Your task to perform on an android device: Clear the cart on walmart. Add usb-c to usb-b to the cart on walmart, then select checkout. Image 0: 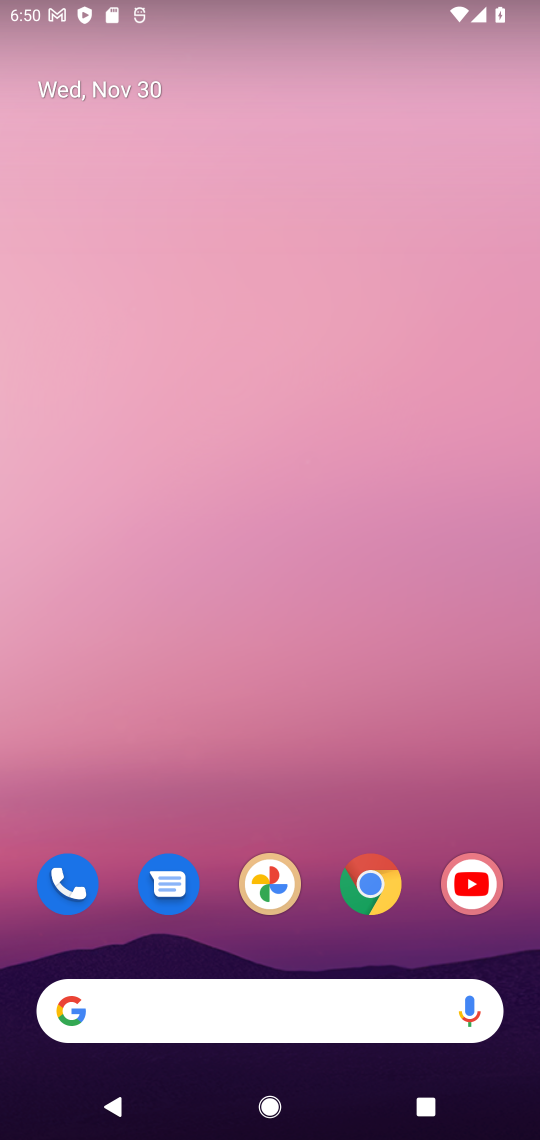
Step 0: click (363, 903)
Your task to perform on an android device: Clear the cart on walmart. Add usb-c to usb-b to the cart on walmart, then select checkout. Image 1: 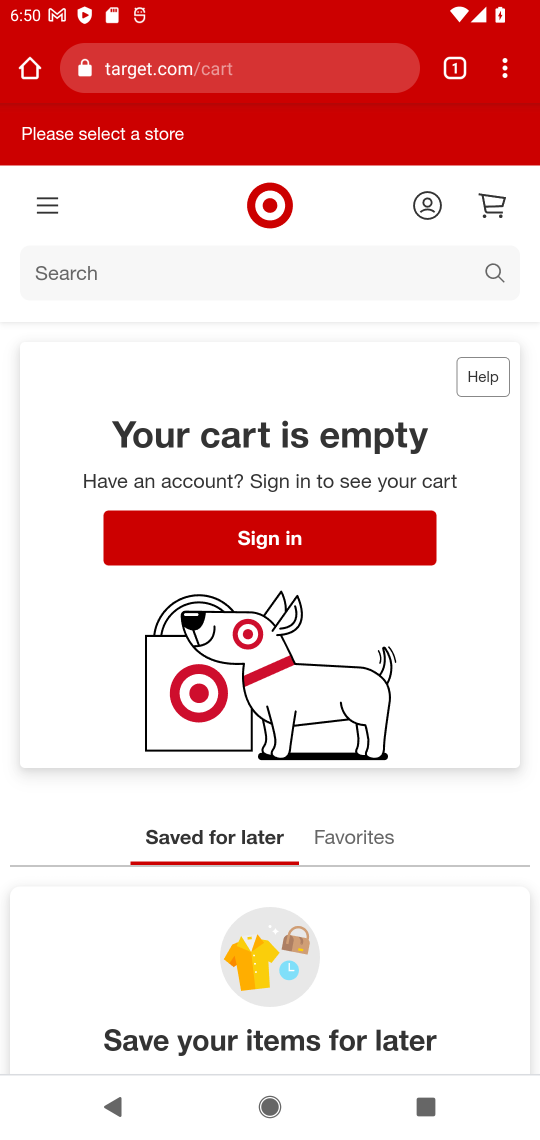
Step 1: click (256, 81)
Your task to perform on an android device: Clear the cart on walmart. Add usb-c to usb-b to the cart on walmart, then select checkout. Image 2: 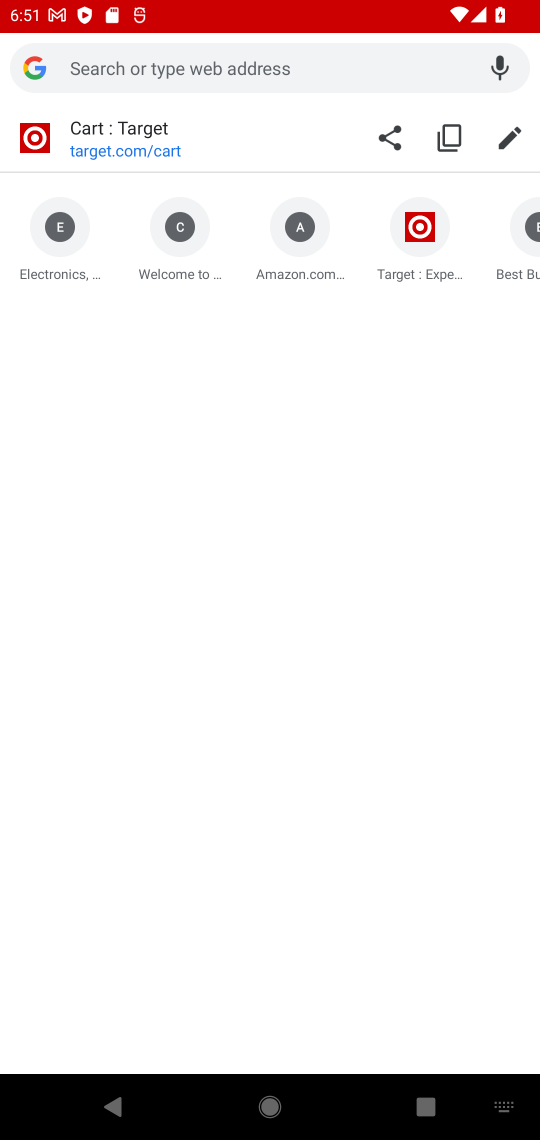
Step 2: type "walmart.com"
Your task to perform on an android device: Clear the cart on walmart. Add usb-c to usb-b to the cart on walmart, then select checkout. Image 3: 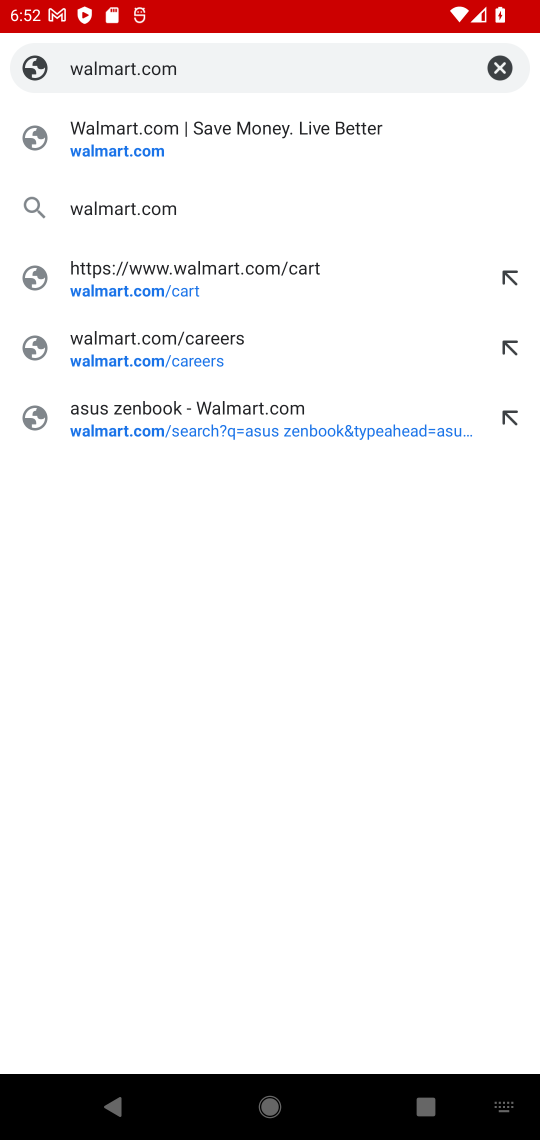
Step 3: click (80, 153)
Your task to perform on an android device: Clear the cart on walmart. Add usb-c to usb-b to the cart on walmart, then select checkout. Image 4: 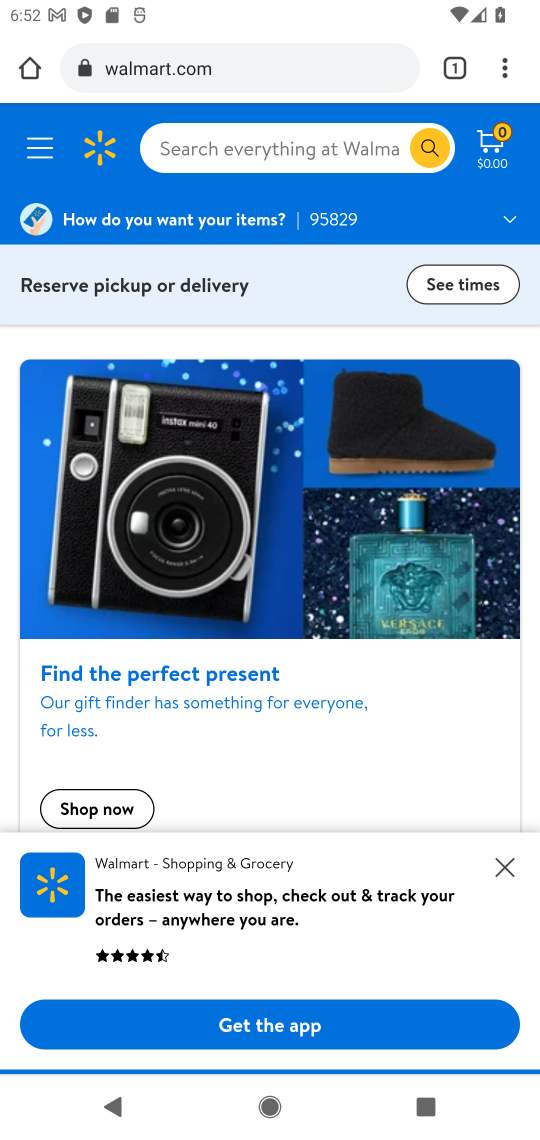
Step 4: click (496, 146)
Your task to perform on an android device: Clear the cart on walmart. Add usb-c to usb-b to the cart on walmart, then select checkout. Image 5: 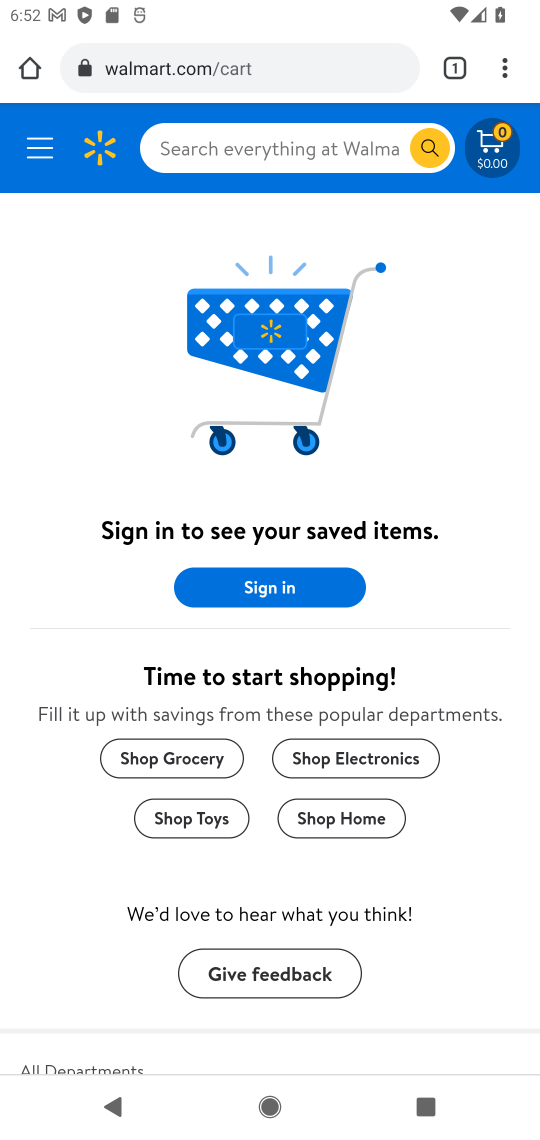
Step 5: click (179, 161)
Your task to perform on an android device: Clear the cart on walmart. Add usb-c to usb-b to the cart on walmart, then select checkout. Image 6: 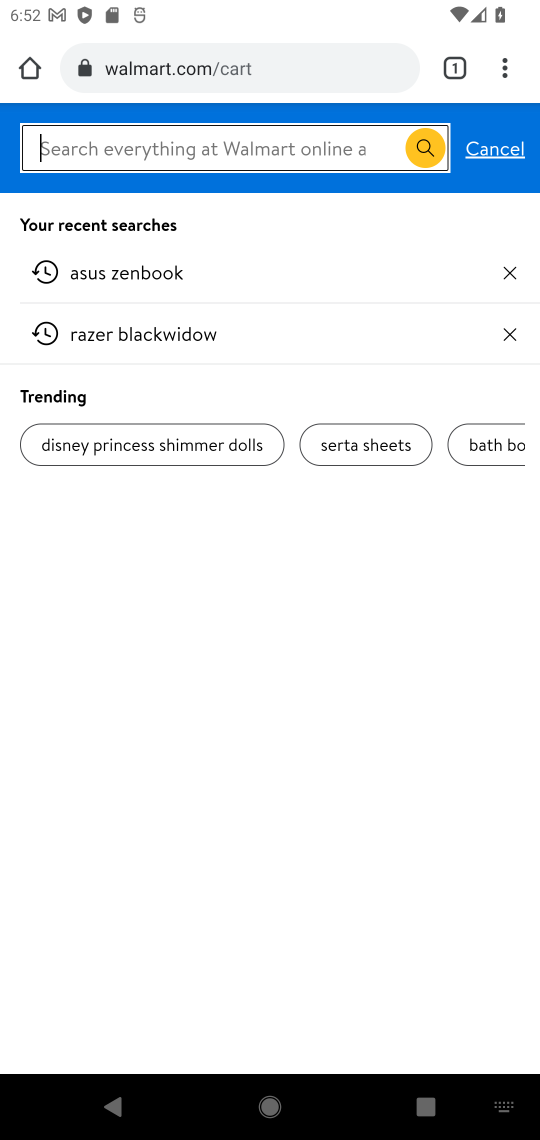
Step 6: type "usb-c to usb-b "
Your task to perform on an android device: Clear the cart on walmart. Add usb-c to usb-b to the cart on walmart, then select checkout. Image 7: 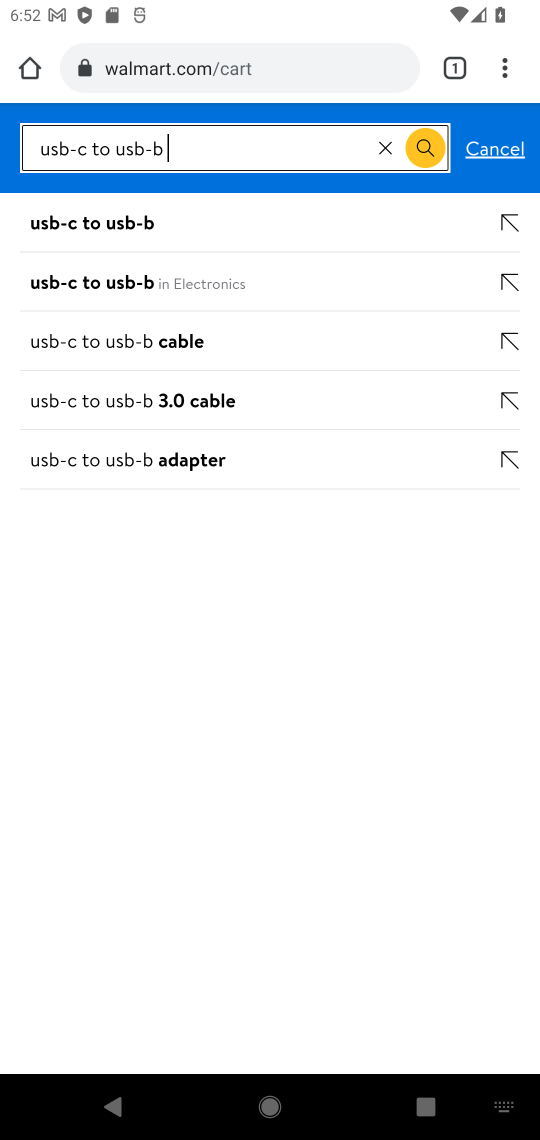
Step 7: click (72, 230)
Your task to perform on an android device: Clear the cart on walmart. Add usb-c to usb-b to the cart on walmart, then select checkout. Image 8: 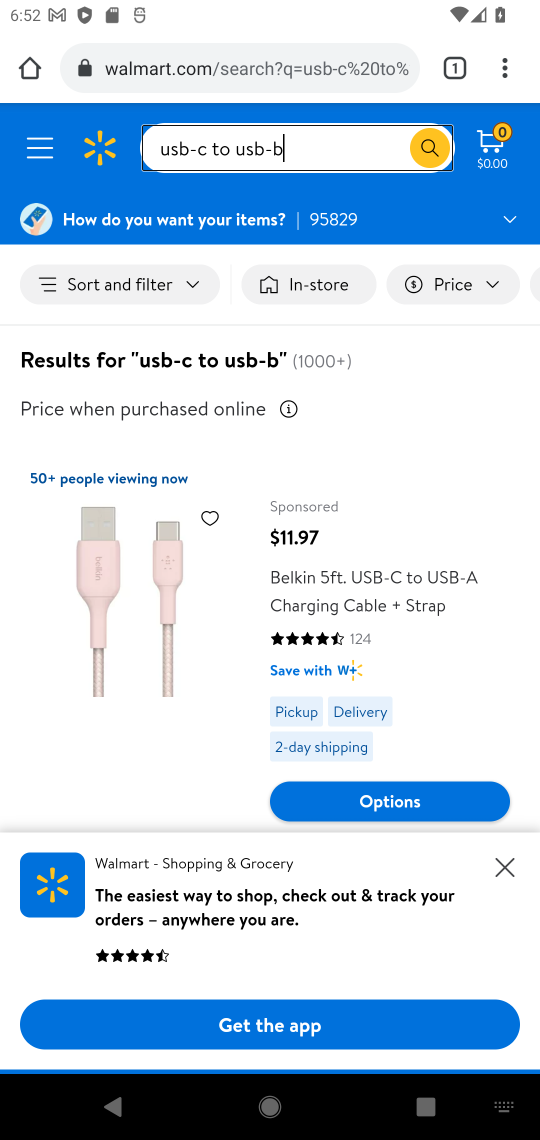
Step 8: drag from (184, 722) to (170, 419)
Your task to perform on an android device: Clear the cart on walmart. Add usb-c to usb-b to the cart on walmart, then select checkout. Image 9: 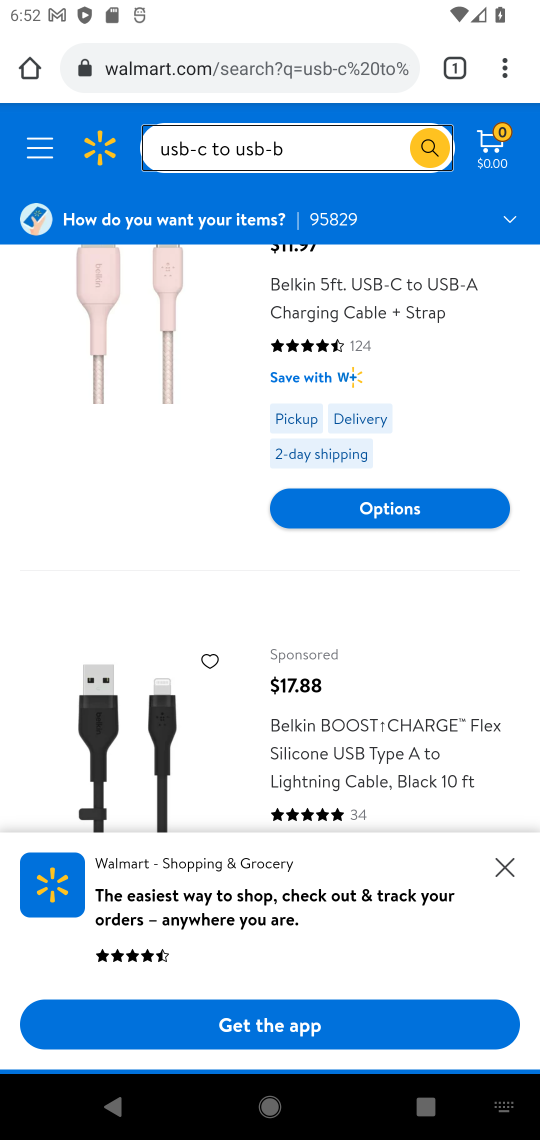
Step 9: drag from (134, 764) to (159, 437)
Your task to perform on an android device: Clear the cart on walmart. Add usb-c to usb-b to the cart on walmart, then select checkout. Image 10: 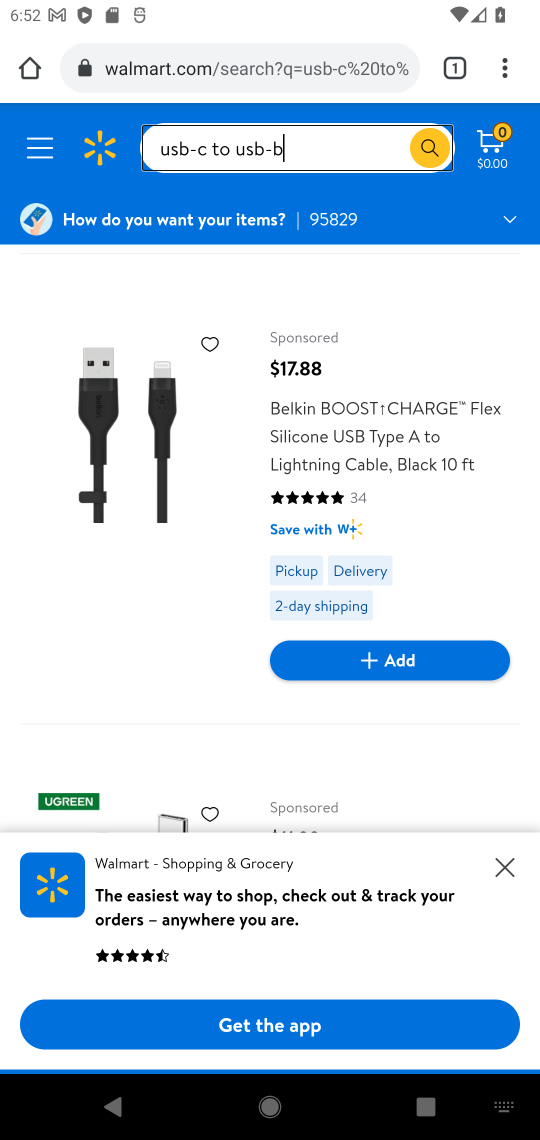
Step 10: drag from (176, 712) to (181, 382)
Your task to perform on an android device: Clear the cart on walmart. Add usb-c to usb-b to the cart on walmart, then select checkout. Image 11: 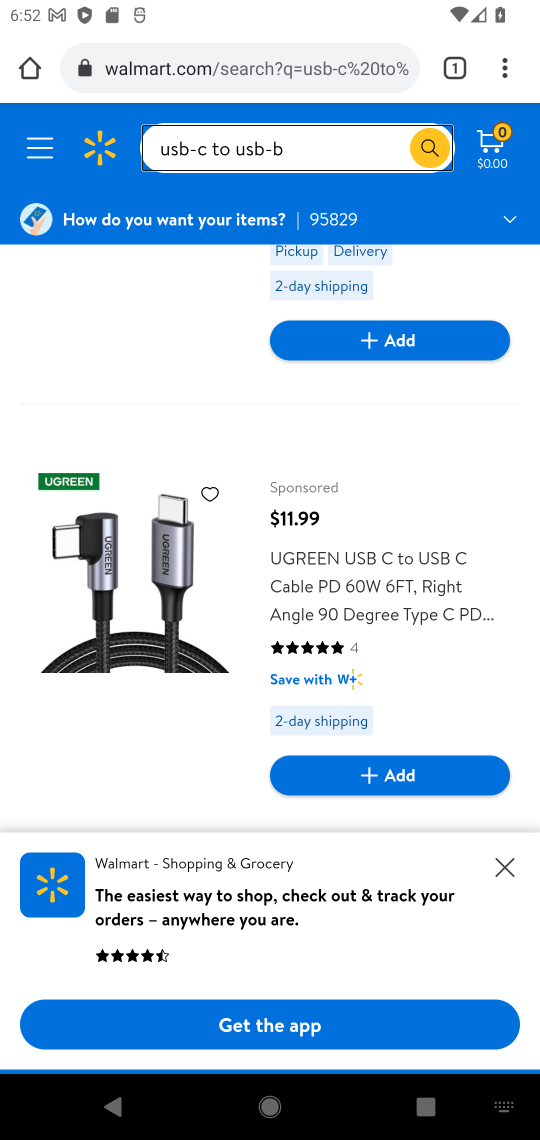
Step 11: drag from (148, 709) to (154, 364)
Your task to perform on an android device: Clear the cart on walmart. Add usb-c to usb-b to the cart on walmart, then select checkout. Image 12: 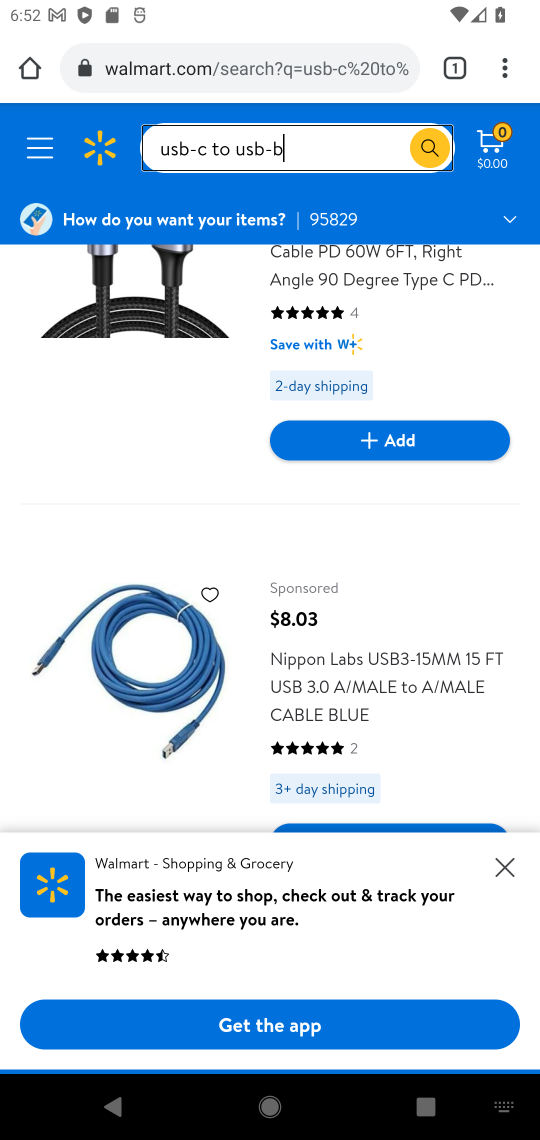
Step 12: drag from (125, 680) to (124, 396)
Your task to perform on an android device: Clear the cart on walmart. Add usb-c to usb-b to the cart on walmart, then select checkout. Image 13: 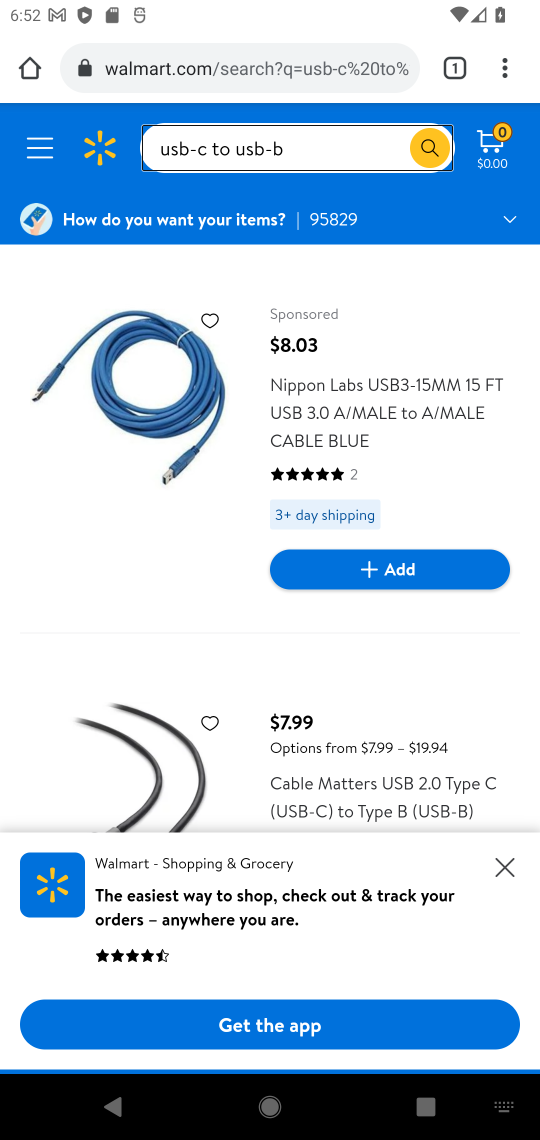
Step 13: drag from (99, 717) to (102, 373)
Your task to perform on an android device: Clear the cart on walmart. Add usb-c to usb-b to the cart on walmart, then select checkout. Image 14: 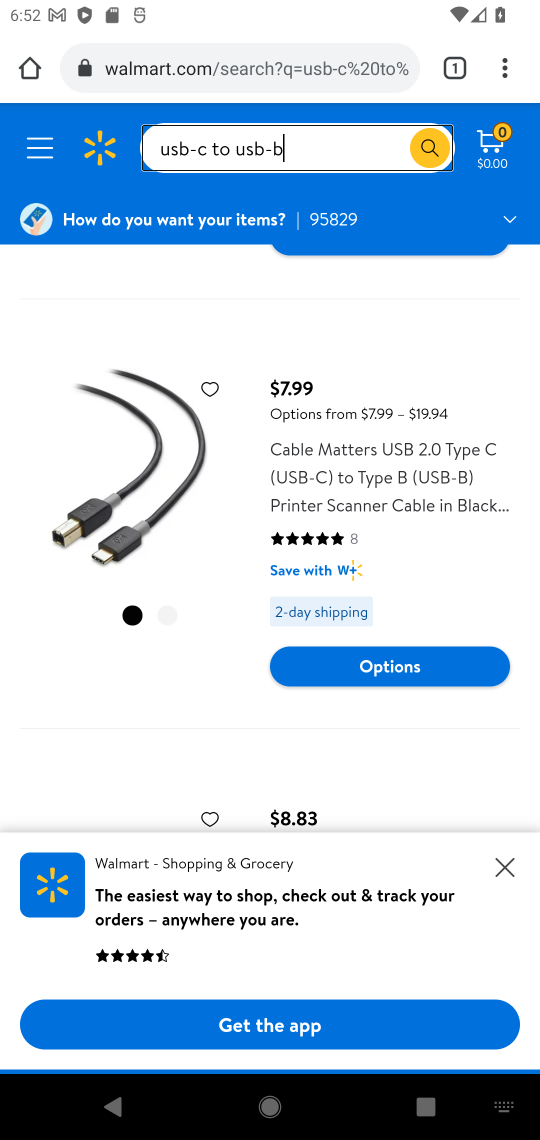
Step 14: click (366, 505)
Your task to perform on an android device: Clear the cart on walmart. Add usb-c to usb-b to the cart on walmart, then select checkout. Image 15: 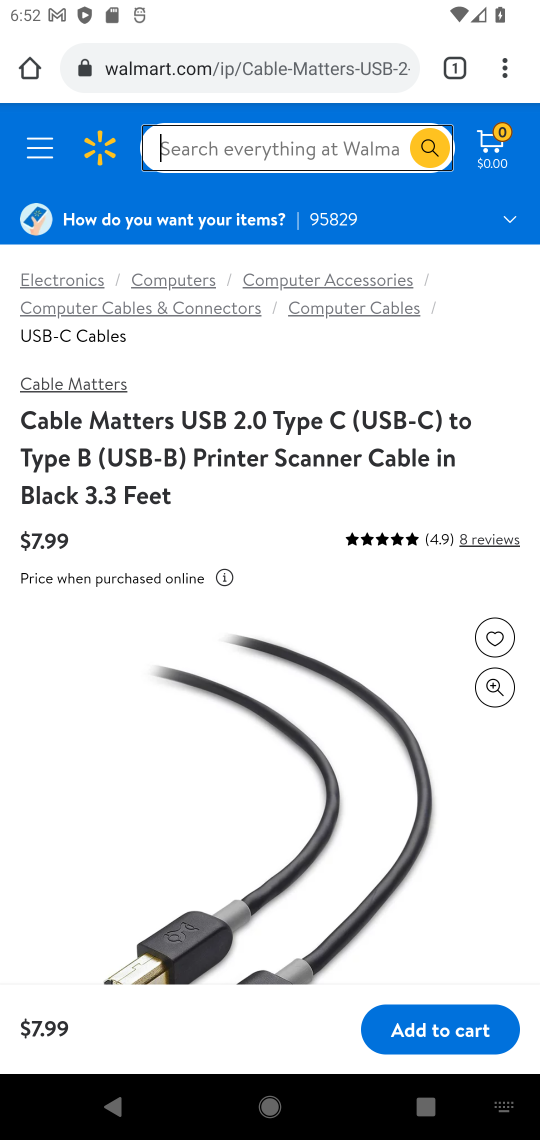
Step 15: click (446, 1030)
Your task to perform on an android device: Clear the cart on walmart. Add usb-c to usb-b to the cart on walmart, then select checkout. Image 16: 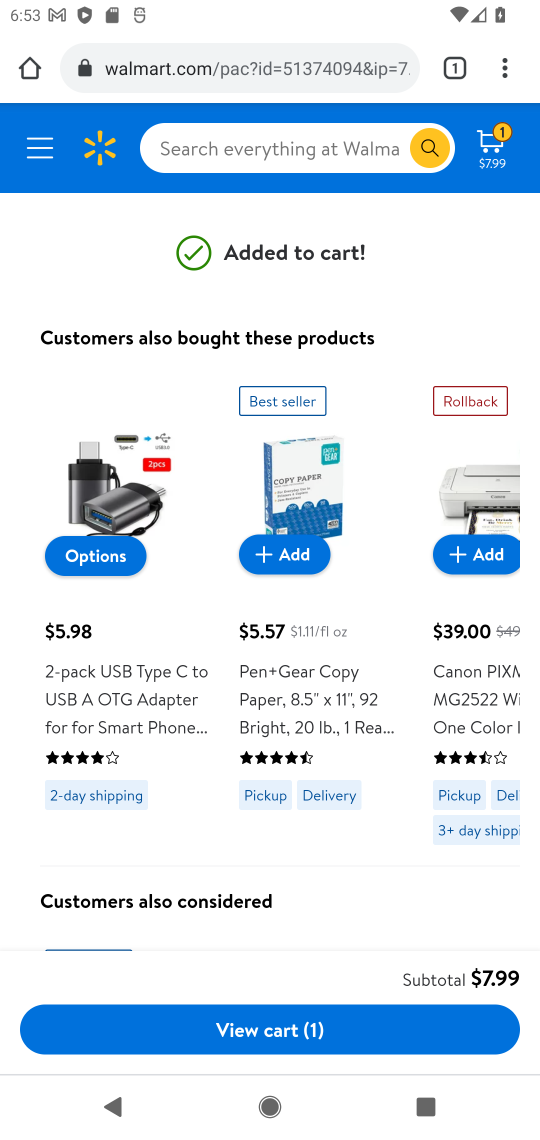
Step 16: click (237, 1027)
Your task to perform on an android device: Clear the cart on walmart. Add usb-c to usb-b to the cart on walmart, then select checkout. Image 17: 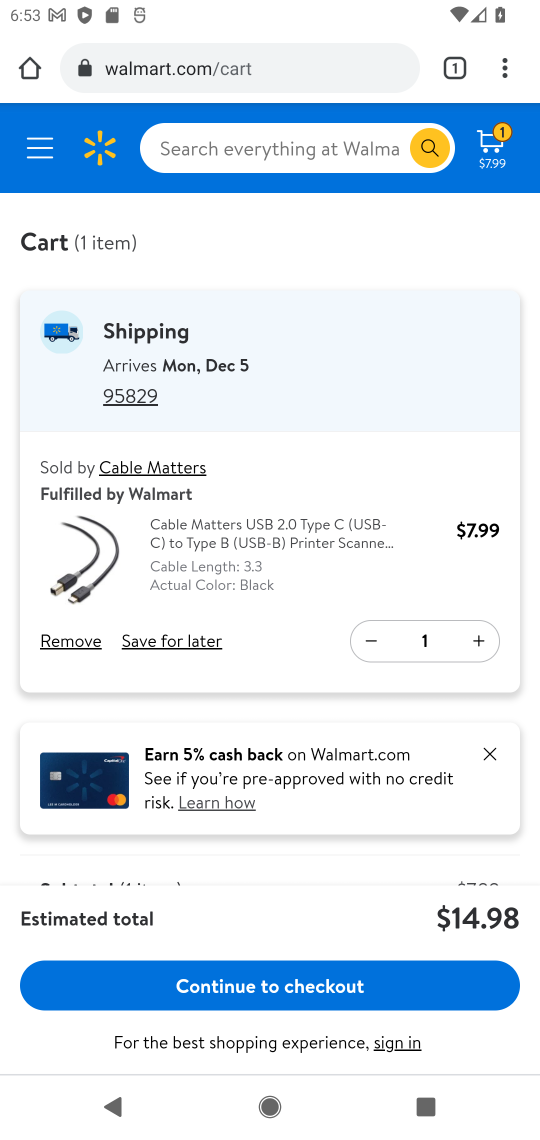
Step 17: click (248, 982)
Your task to perform on an android device: Clear the cart on walmart. Add usb-c to usb-b to the cart on walmart, then select checkout. Image 18: 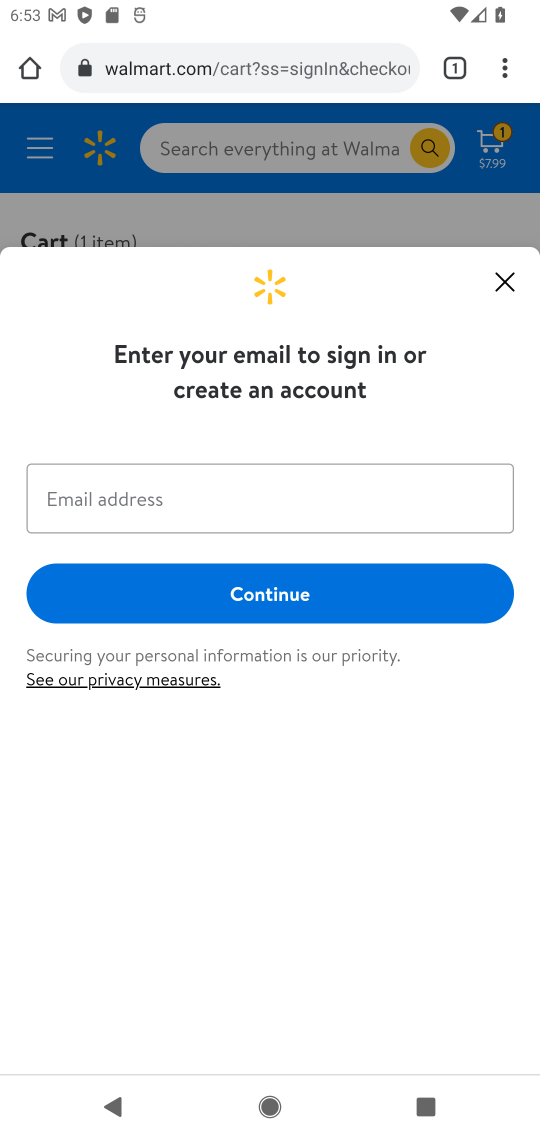
Step 18: task complete